Your task to perform on an android device: turn on bluetooth scan Image 0: 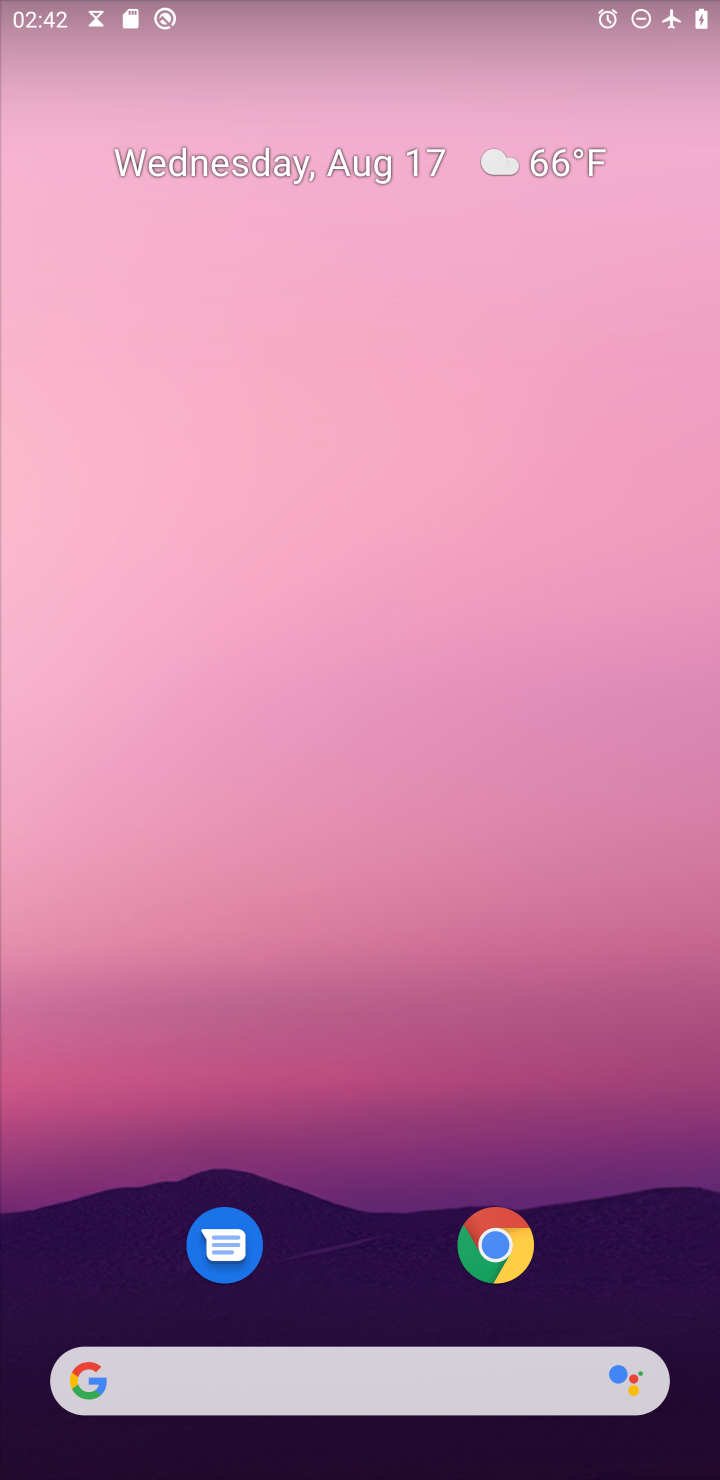
Step 0: drag from (331, 1071) to (331, 81)
Your task to perform on an android device: turn on bluetooth scan Image 1: 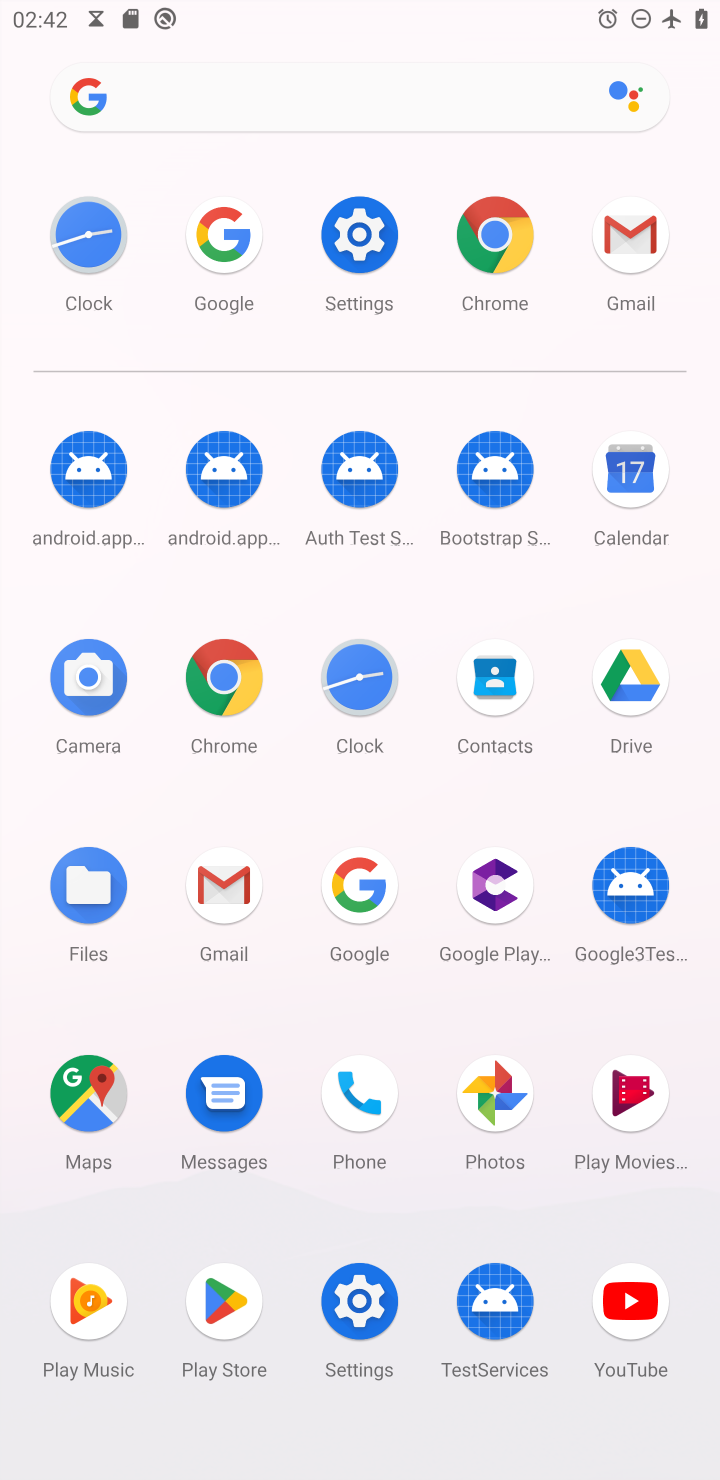
Step 1: click (369, 215)
Your task to perform on an android device: turn on bluetooth scan Image 2: 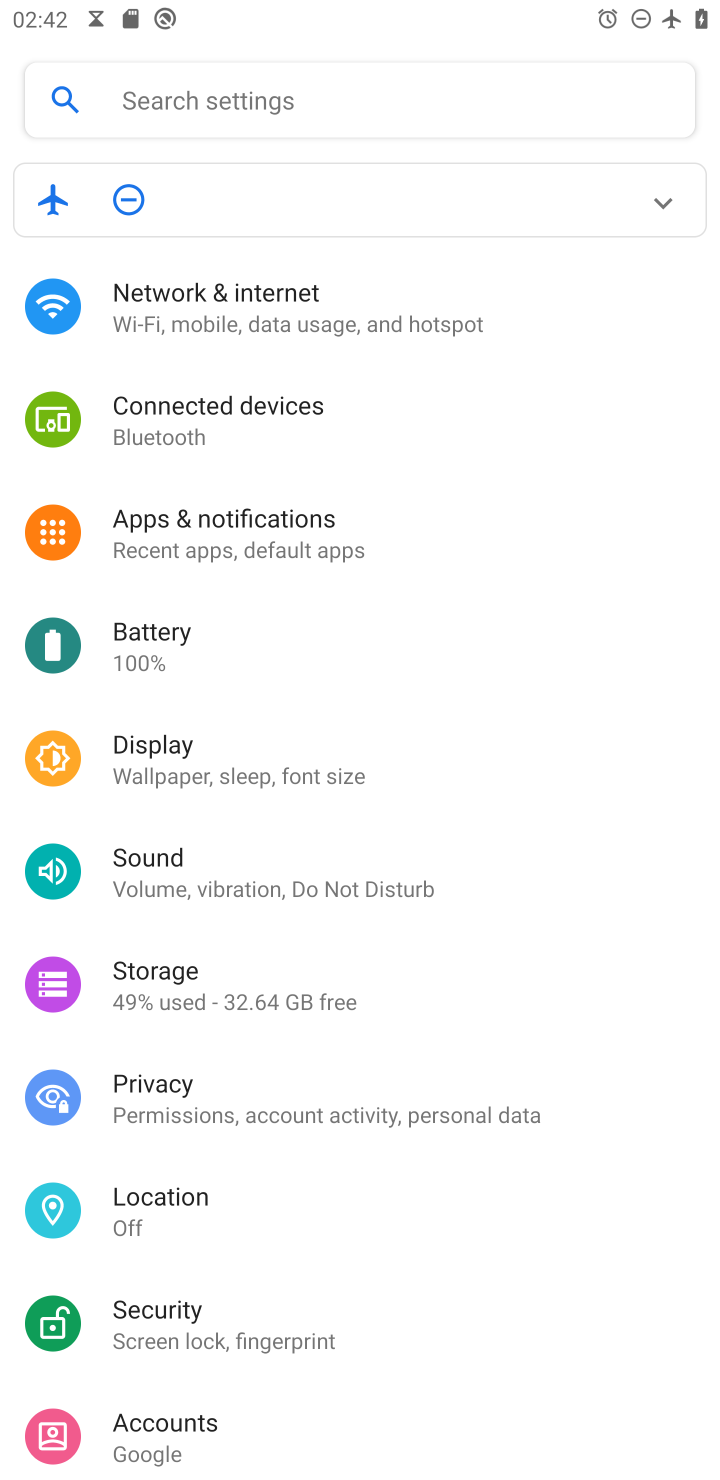
Step 2: click (182, 322)
Your task to perform on an android device: turn on bluetooth scan Image 3: 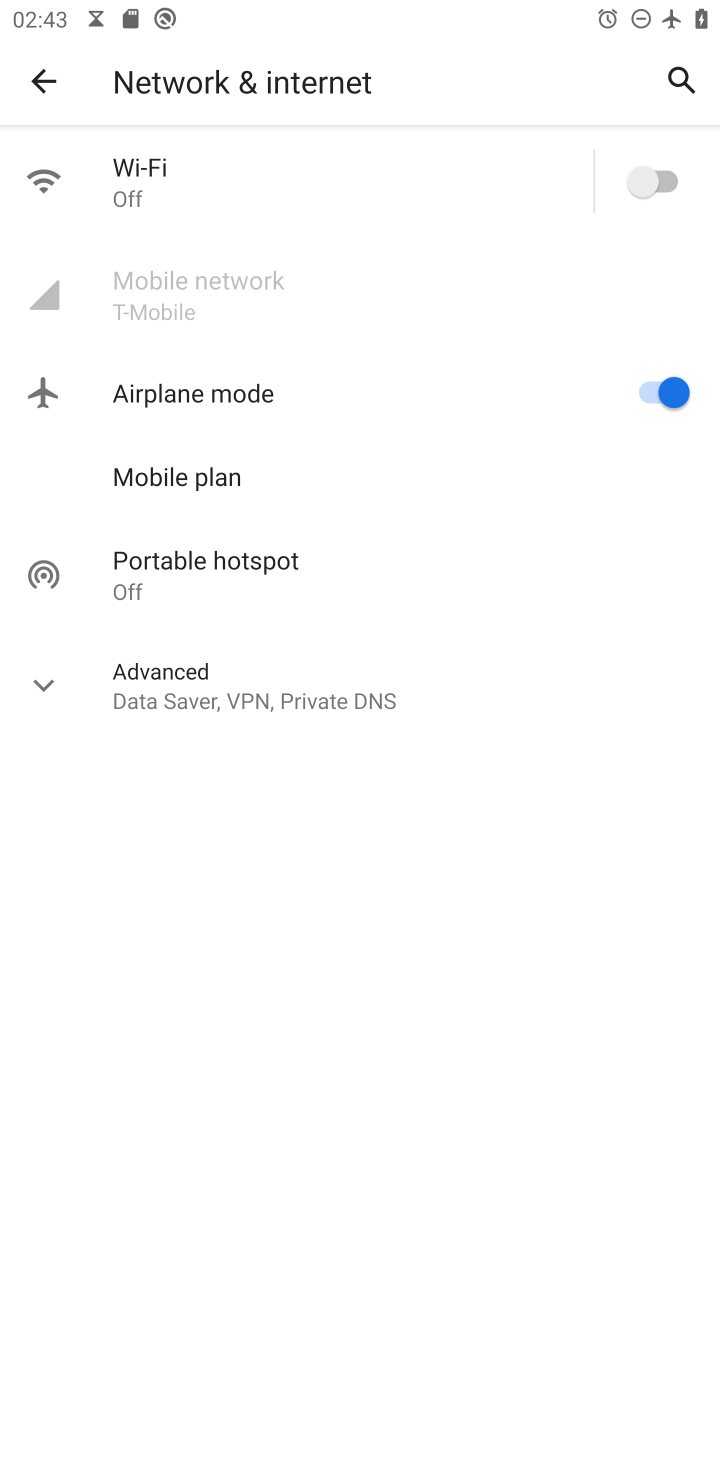
Step 3: click (677, 390)
Your task to perform on an android device: turn on bluetooth scan Image 4: 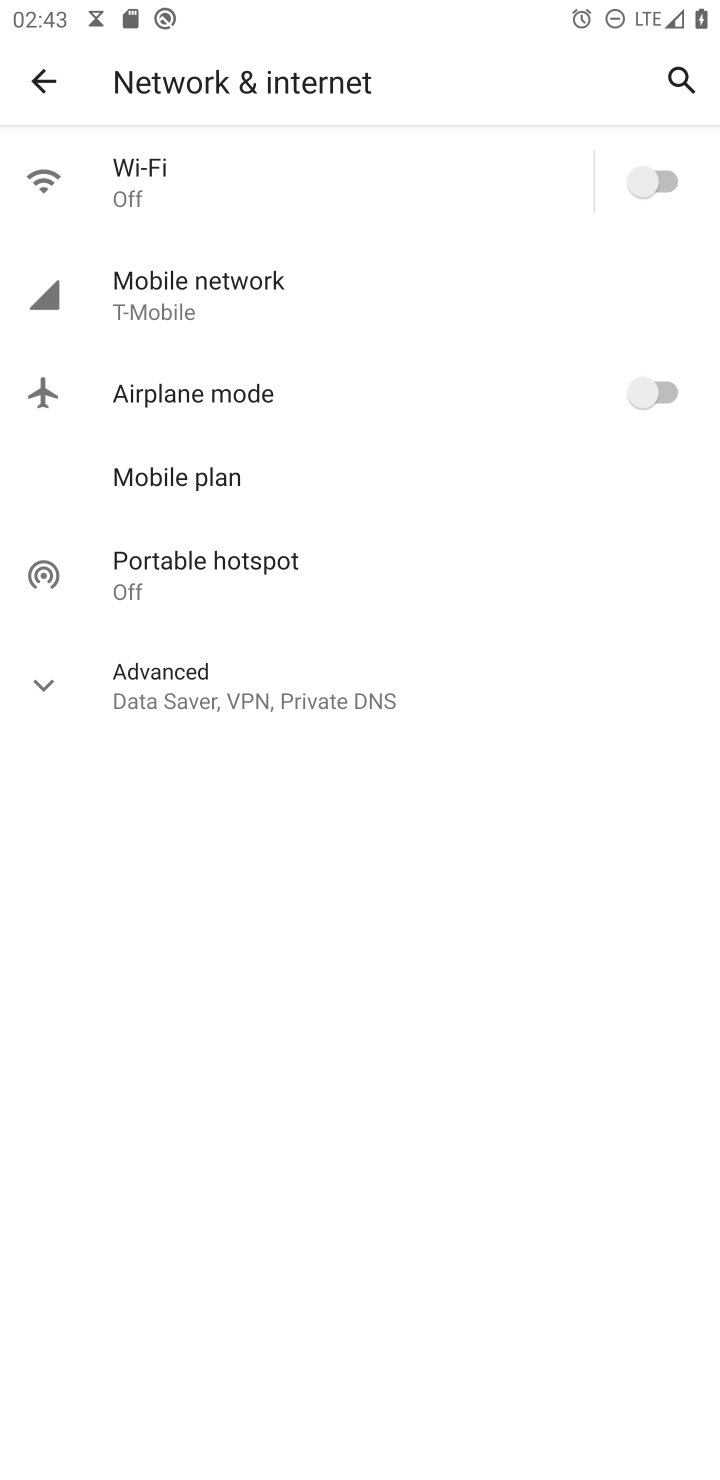
Step 4: click (56, 79)
Your task to perform on an android device: turn on bluetooth scan Image 5: 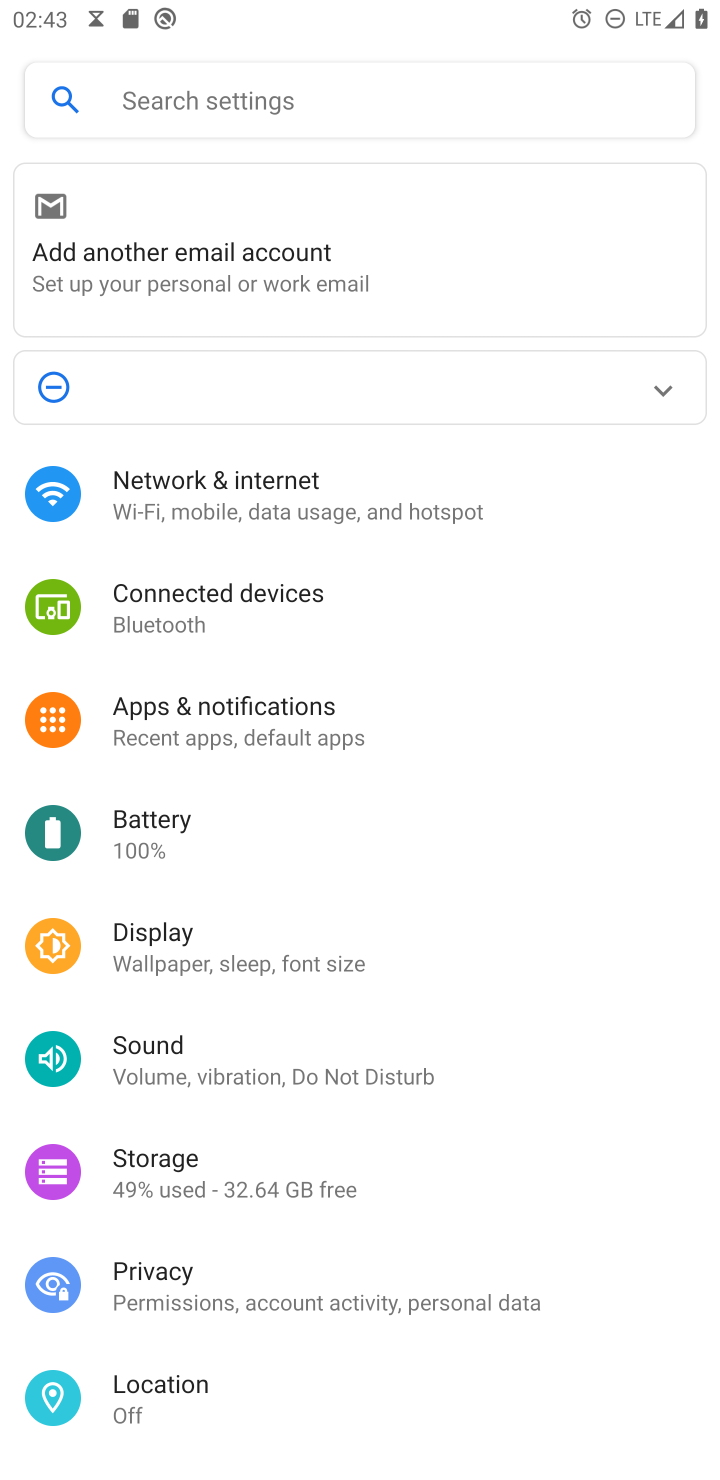
Step 5: drag from (233, 1348) to (209, 1030)
Your task to perform on an android device: turn on bluetooth scan Image 6: 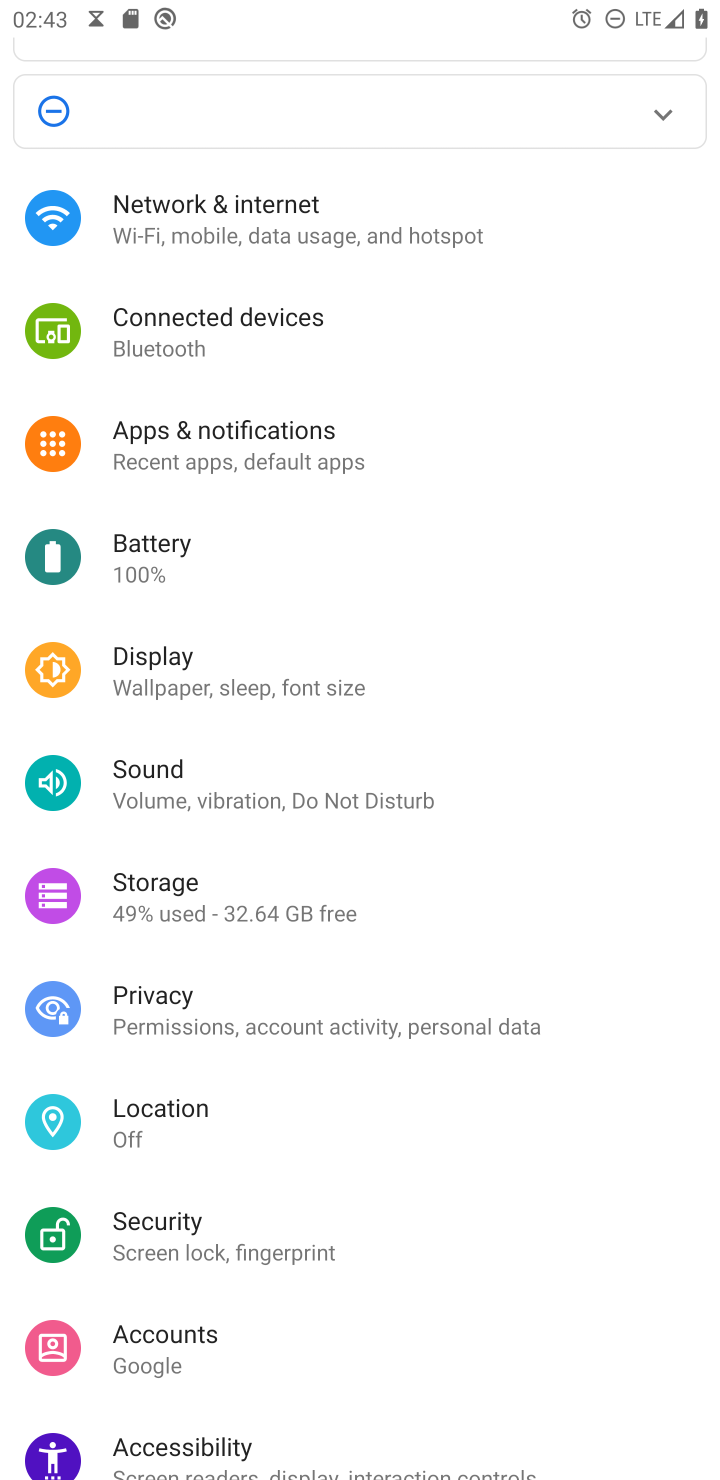
Step 6: click (146, 1102)
Your task to perform on an android device: turn on bluetooth scan Image 7: 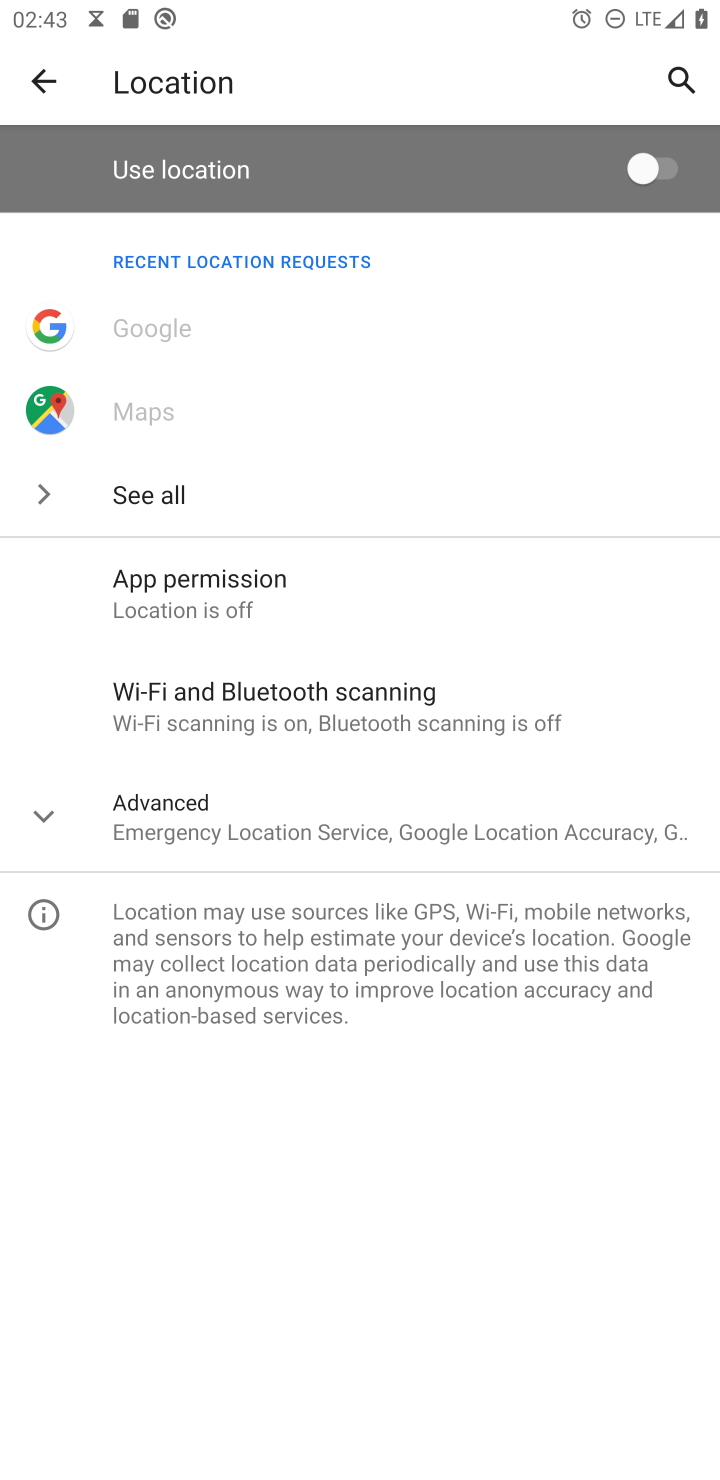
Step 7: click (246, 692)
Your task to perform on an android device: turn on bluetooth scan Image 8: 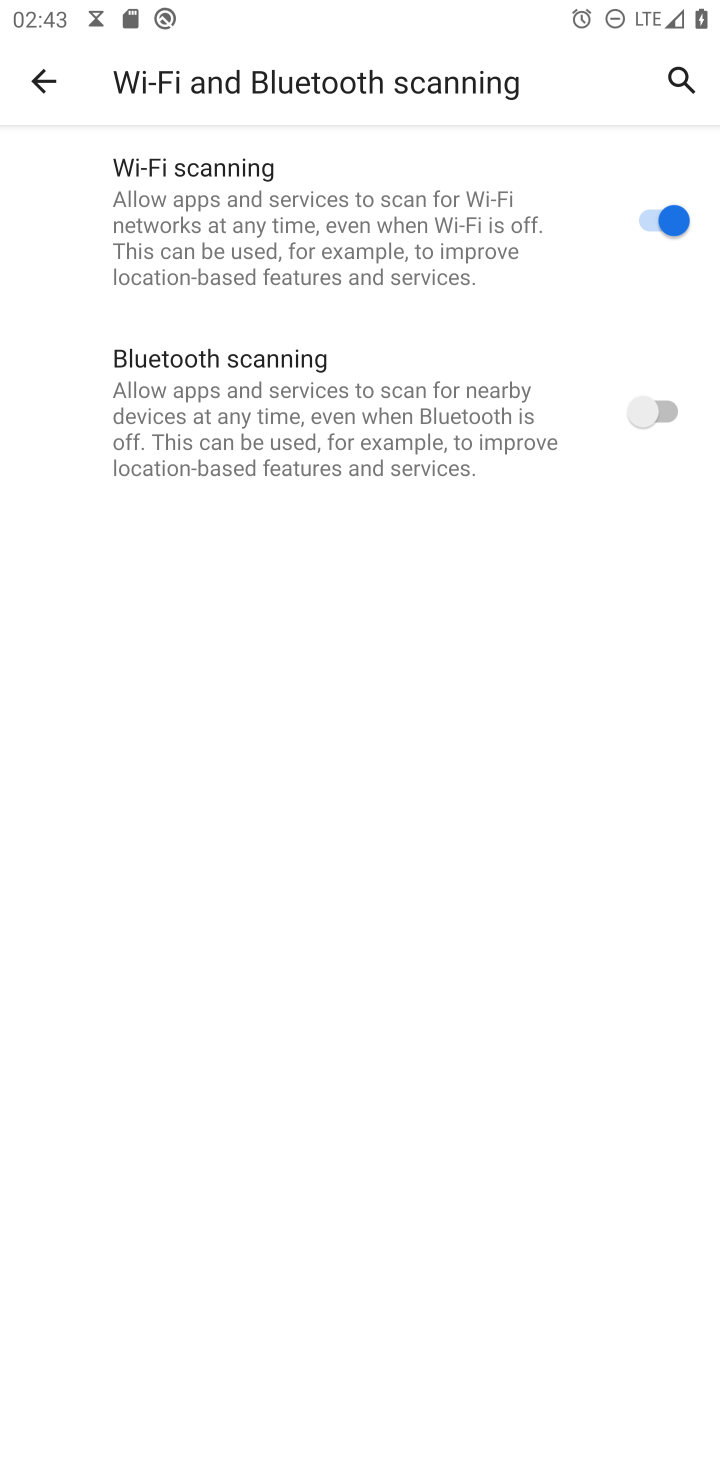
Step 8: click (654, 410)
Your task to perform on an android device: turn on bluetooth scan Image 9: 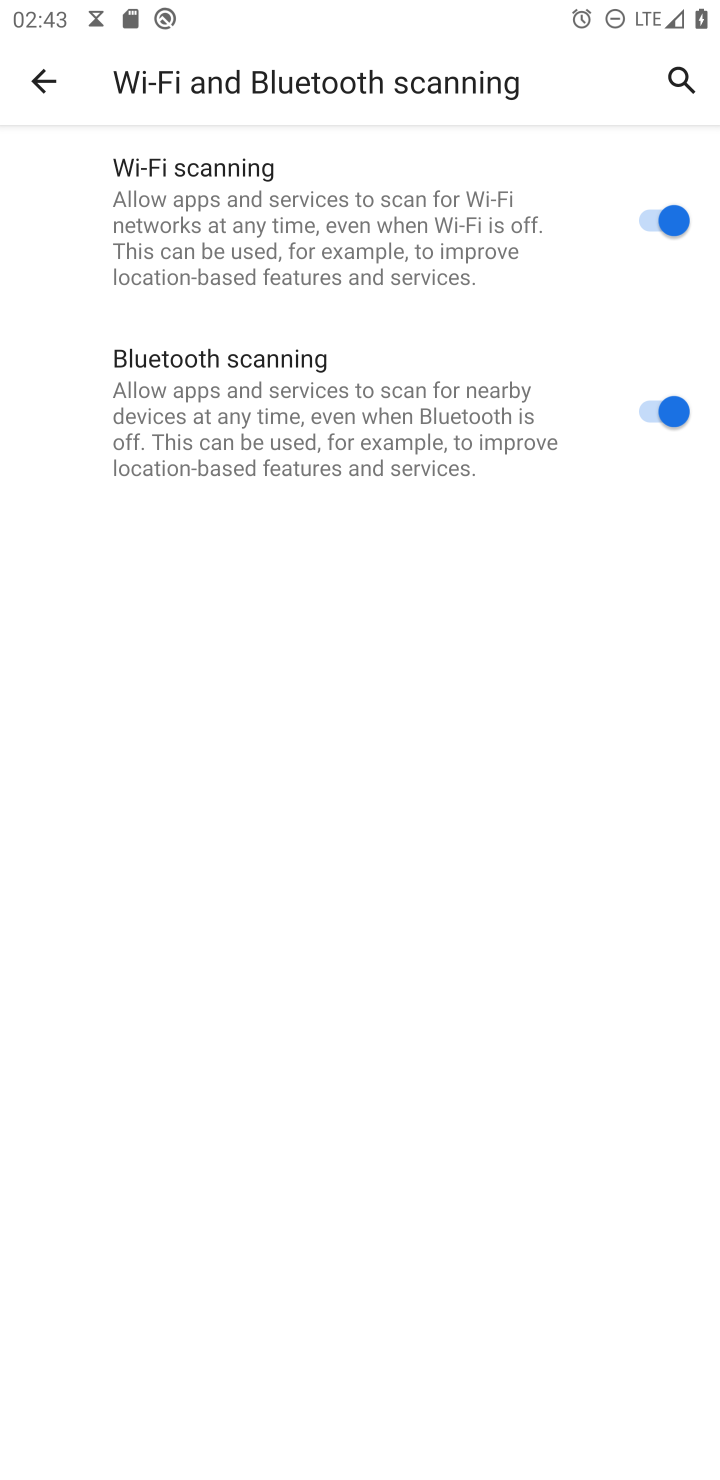
Step 9: task complete